Your task to perform on an android device: turn off wifi Image 0: 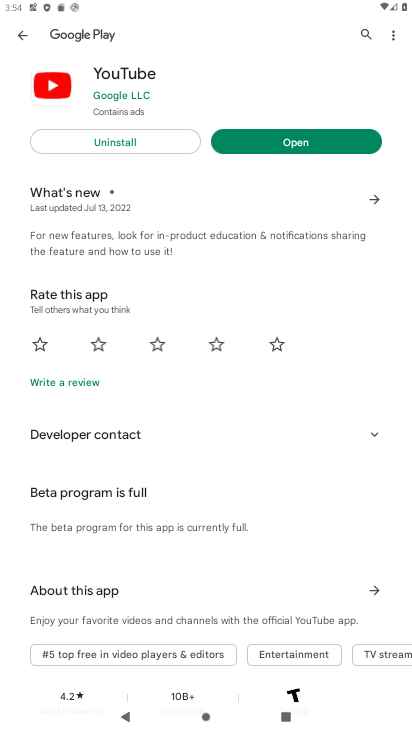
Step 0: press home button
Your task to perform on an android device: turn off wifi Image 1: 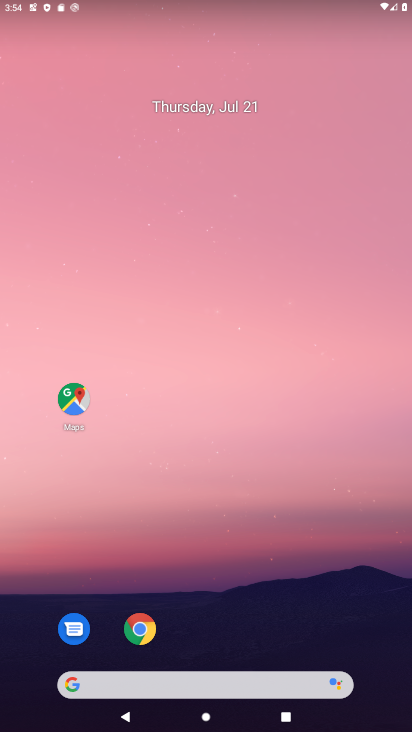
Step 1: drag from (298, 621) to (230, 216)
Your task to perform on an android device: turn off wifi Image 2: 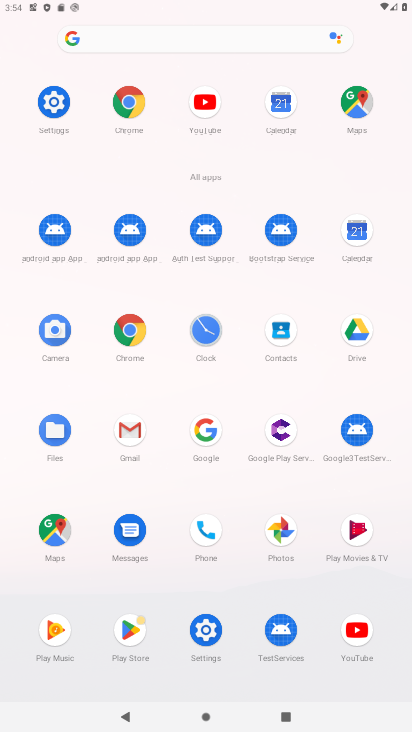
Step 2: click (54, 97)
Your task to perform on an android device: turn off wifi Image 3: 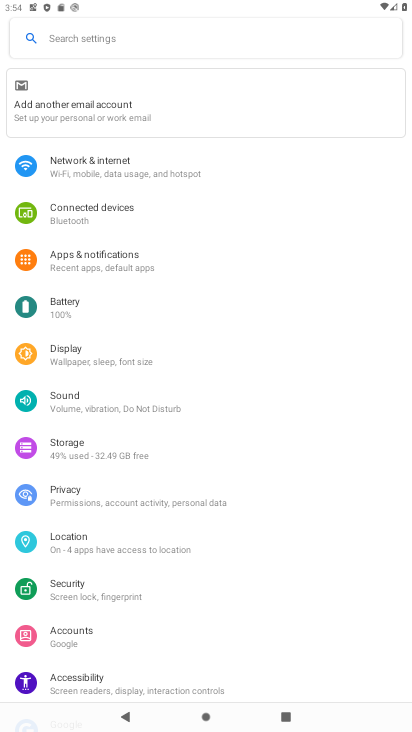
Step 3: click (97, 176)
Your task to perform on an android device: turn off wifi Image 4: 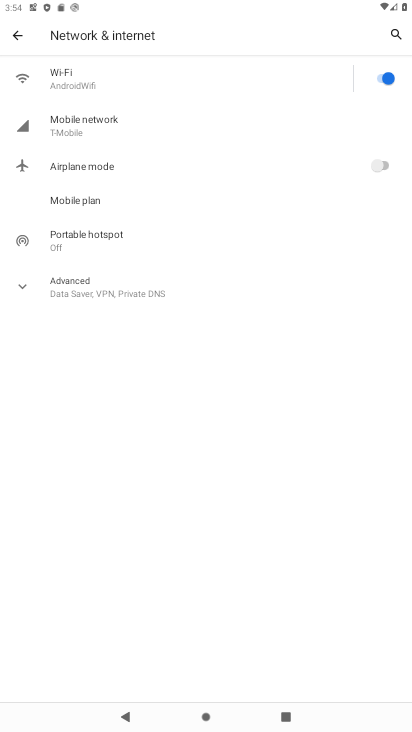
Step 4: click (362, 69)
Your task to perform on an android device: turn off wifi Image 5: 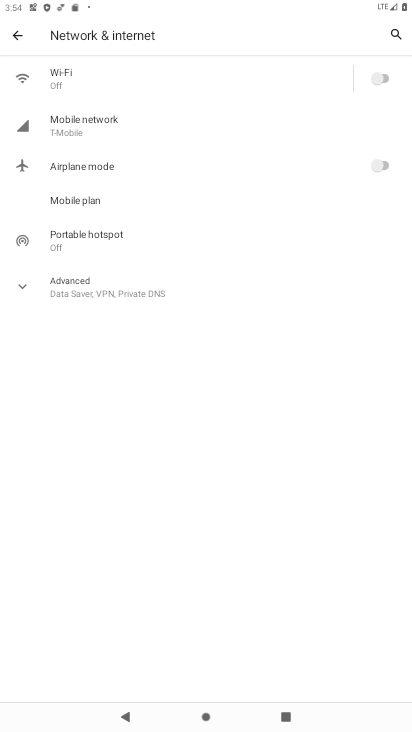
Step 5: task complete